Your task to perform on an android device: Go to location settings Image 0: 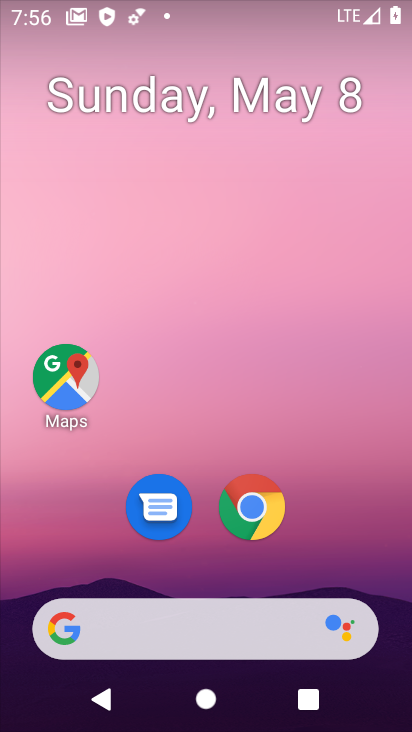
Step 0: drag from (255, 678) to (393, 86)
Your task to perform on an android device: Go to location settings Image 1: 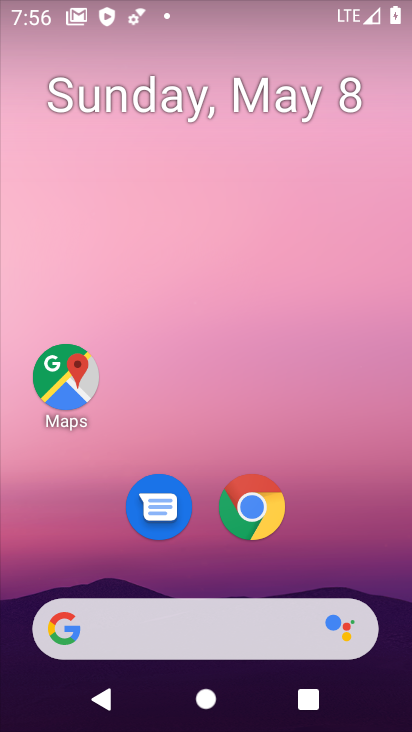
Step 1: drag from (248, 708) to (187, 99)
Your task to perform on an android device: Go to location settings Image 2: 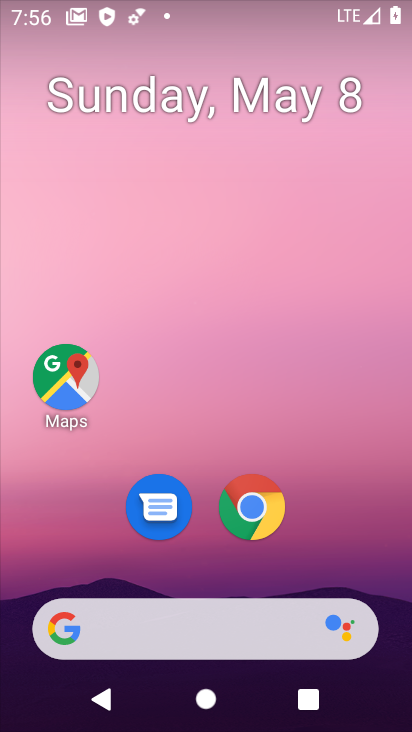
Step 2: drag from (267, 701) to (268, 2)
Your task to perform on an android device: Go to location settings Image 3: 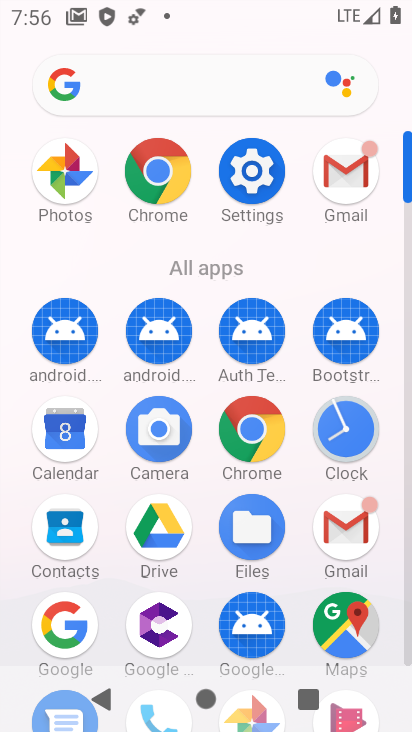
Step 3: click (249, 187)
Your task to perform on an android device: Go to location settings Image 4: 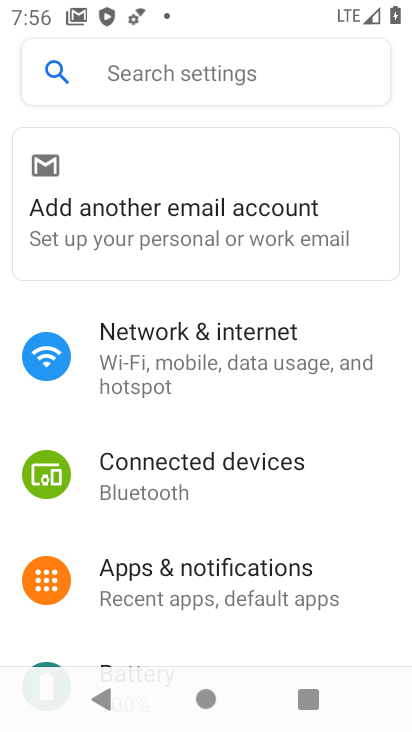
Step 4: drag from (200, 622) to (168, 75)
Your task to perform on an android device: Go to location settings Image 5: 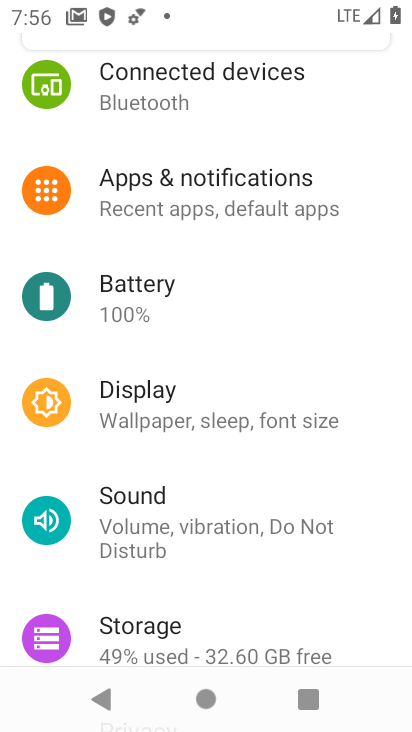
Step 5: drag from (231, 556) to (140, 41)
Your task to perform on an android device: Go to location settings Image 6: 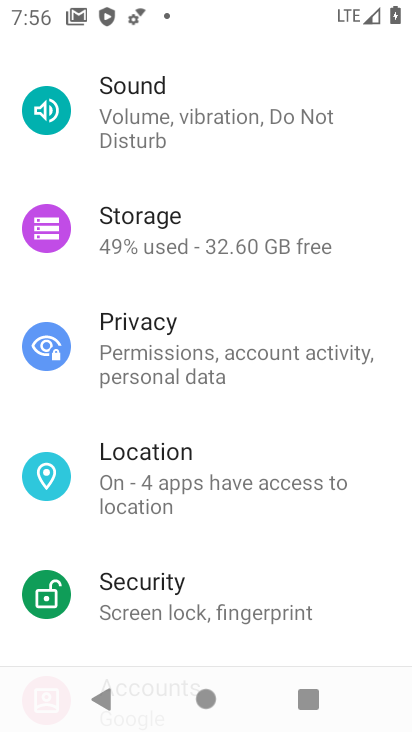
Step 6: click (176, 496)
Your task to perform on an android device: Go to location settings Image 7: 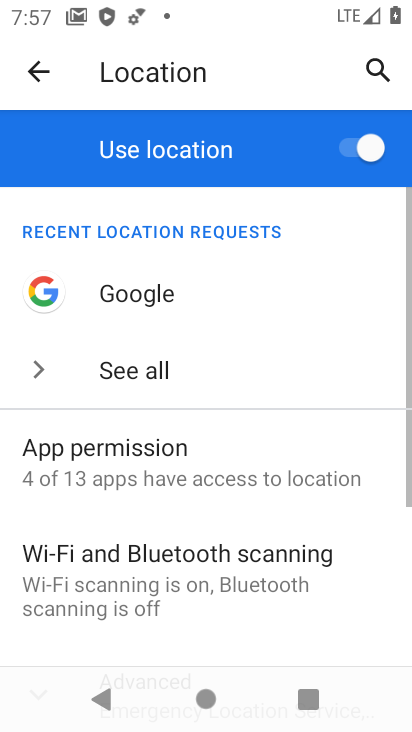
Step 7: task complete